Your task to perform on an android device: turn off notifications settings in the gmail app Image 0: 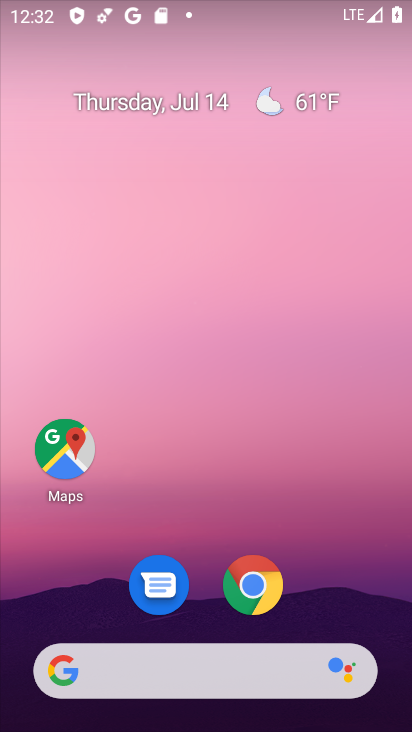
Step 0: drag from (324, 558) to (286, 16)
Your task to perform on an android device: turn off notifications settings in the gmail app Image 1: 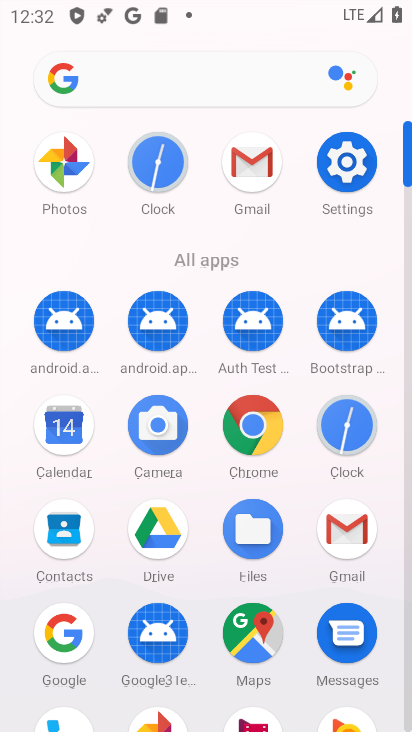
Step 1: click (252, 172)
Your task to perform on an android device: turn off notifications settings in the gmail app Image 2: 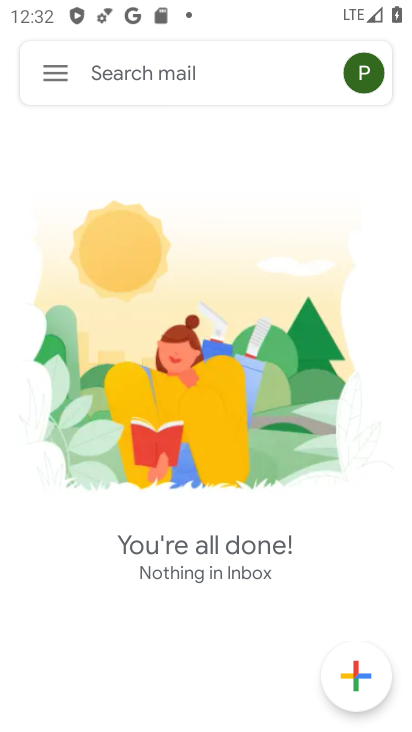
Step 2: click (58, 71)
Your task to perform on an android device: turn off notifications settings in the gmail app Image 3: 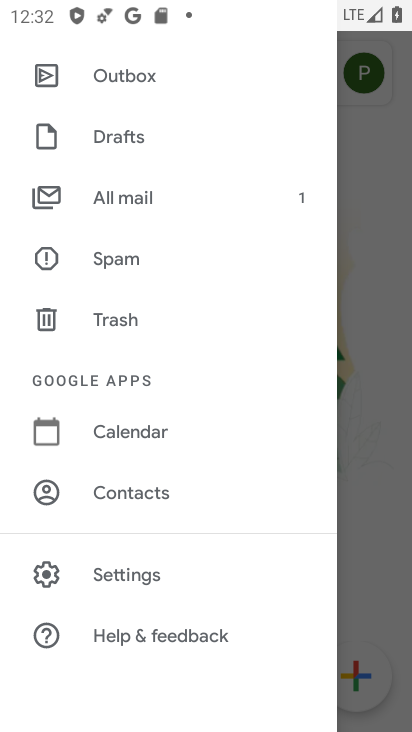
Step 3: click (149, 563)
Your task to perform on an android device: turn off notifications settings in the gmail app Image 4: 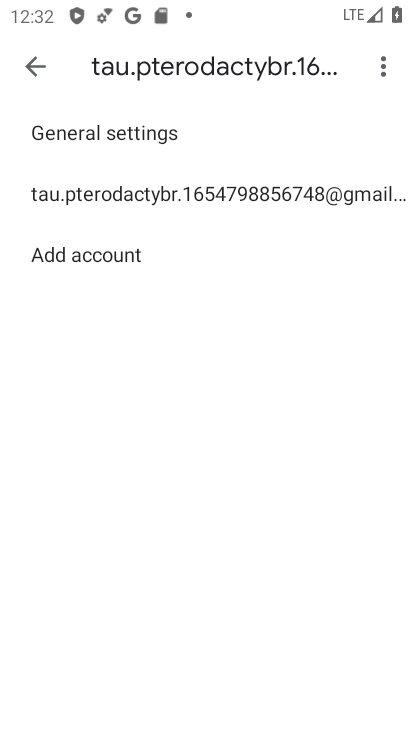
Step 4: click (272, 189)
Your task to perform on an android device: turn off notifications settings in the gmail app Image 5: 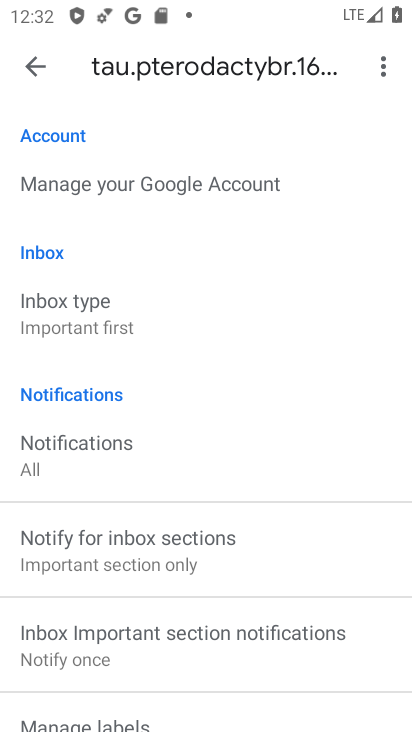
Step 5: drag from (243, 342) to (268, 575)
Your task to perform on an android device: turn off notifications settings in the gmail app Image 6: 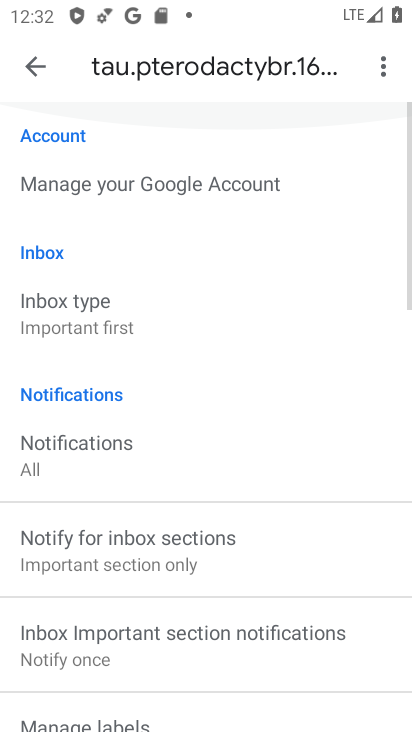
Step 6: drag from (268, 543) to (257, 243)
Your task to perform on an android device: turn off notifications settings in the gmail app Image 7: 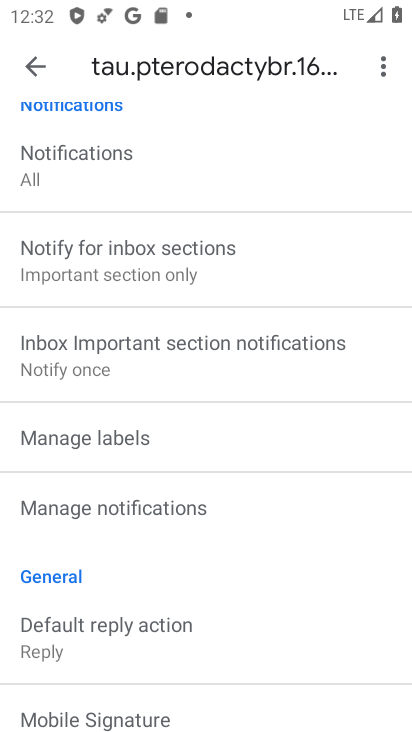
Step 7: drag from (244, 532) to (231, 447)
Your task to perform on an android device: turn off notifications settings in the gmail app Image 8: 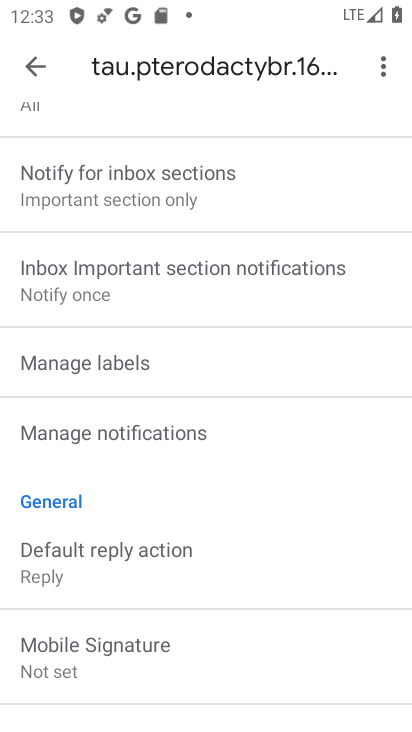
Step 8: click (205, 433)
Your task to perform on an android device: turn off notifications settings in the gmail app Image 9: 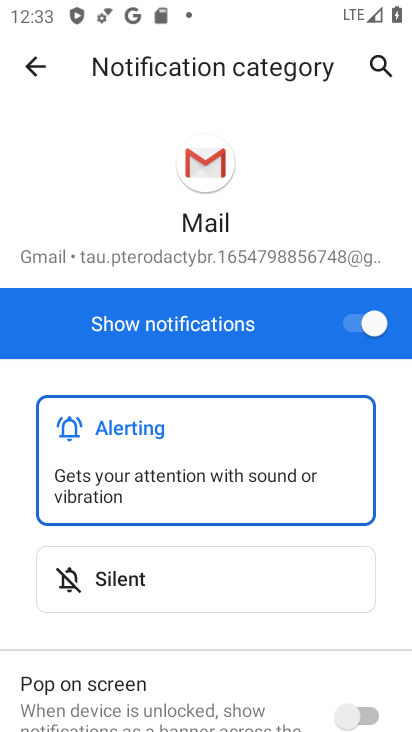
Step 9: click (362, 322)
Your task to perform on an android device: turn off notifications settings in the gmail app Image 10: 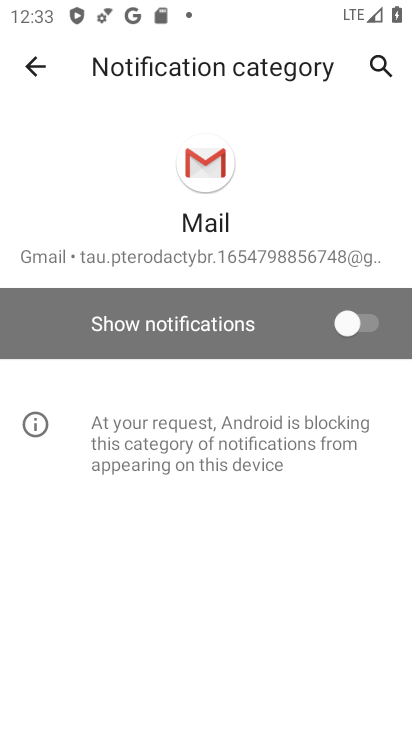
Step 10: task complete